Your task to perform on an android device: open app "Pinterest" (install if not already installed) Image 0: 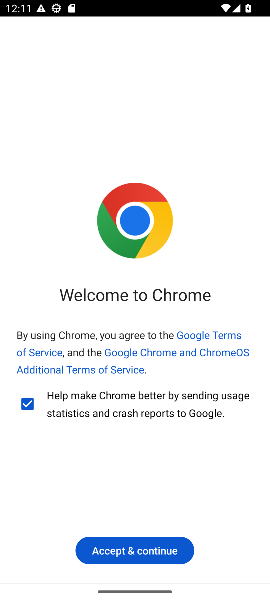
Step 0: press home button
Your task to perform on an android device: open app "Pinterest" (install if not already installed) Image 1: 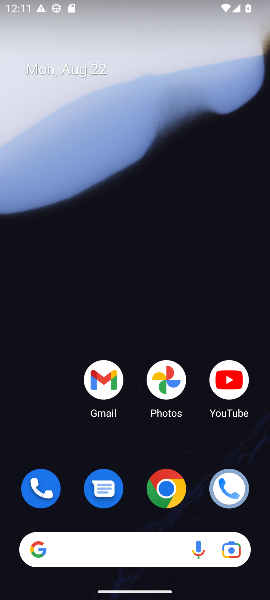
Step 1: drag from (132, 283) to (141, 112)
Your task to perform on an android device: open app "Pinterest" (install if not already installed) Image 2: 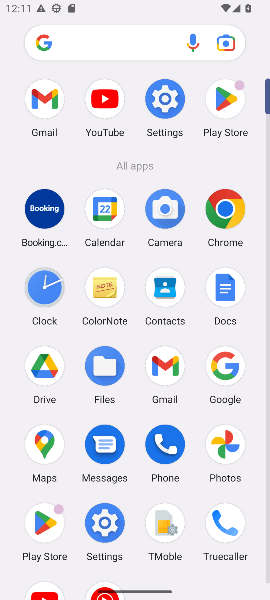
Step 2: click (226, 104)
Your task to perform on an android device: open app "Pinterest" (install if not already installed) Image 3: 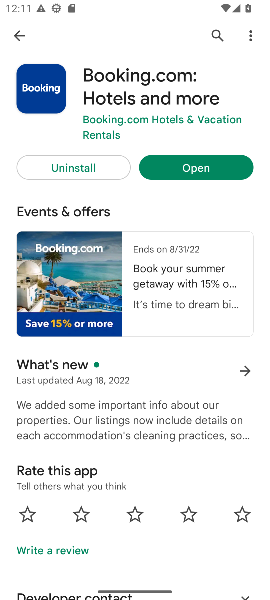
Step 3: click (17, 37)
Your task to perform on an android device: open app "Pinterest" (install if not already installed) Image 4: 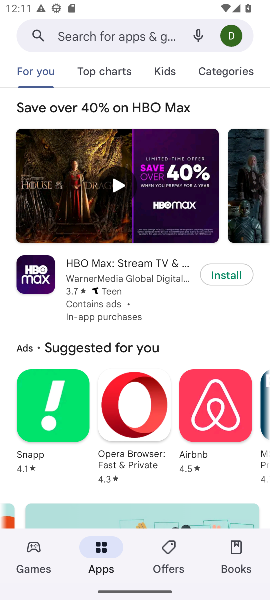
Step 4: click (133, 30)
Your task to perform on an android device: open app "Pinterest" (install if not already installed) Image 5: 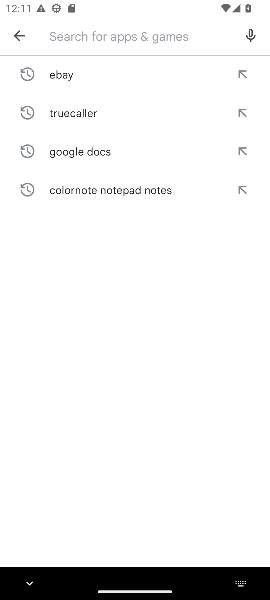
Step 5: type "Pinterest"
Your task to perform on an android device: open app "Pinterest" (install if not already installed) Image 6: 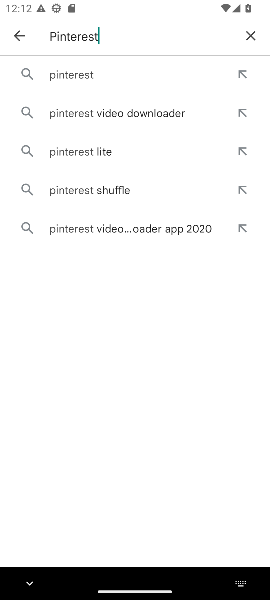
Step 6: click (63, 71)
Your task to perform on an android device: open app "Pinterest" (install if not already installed) Image 7: 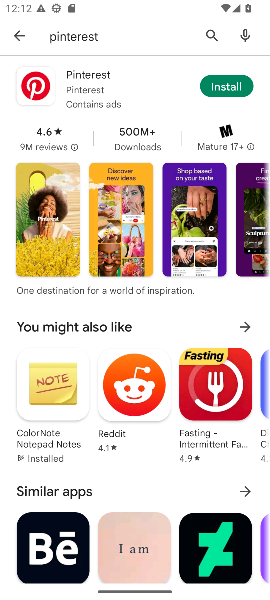
Step 7: click (218, 97)
Your task to perform on an android device: open app "Pinterest" (install if not already installed) Image 8: 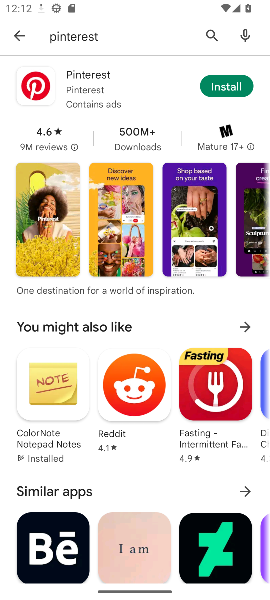
Step 8: click (223, 88)
Your task to perform on an android device: open app "Pinterest" (install if not already installed) Image 9: 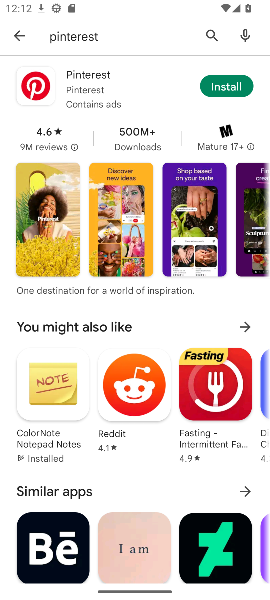
Step 9: task complete